Your task to perform on an android device: set default search engine in the chrome app Image 0: 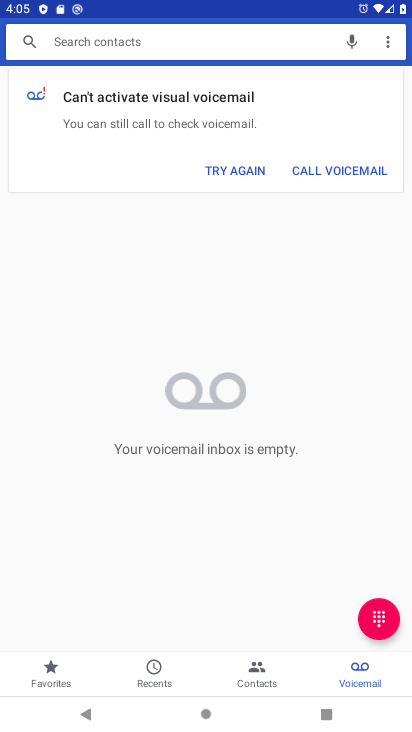
Step 0: press home button
Your task to perform on an android device: set default search engine in the chrome app Image 1: 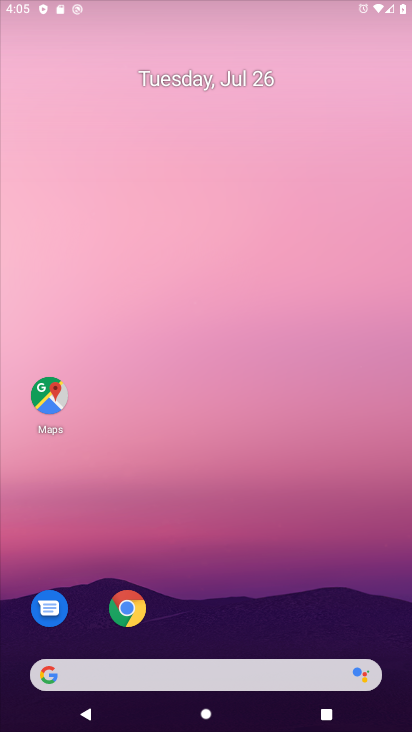
Step 1: drag from (389, 685) to (313, 175)
Your task to perform on an android device: set default search engine in the chrome app Image 2: 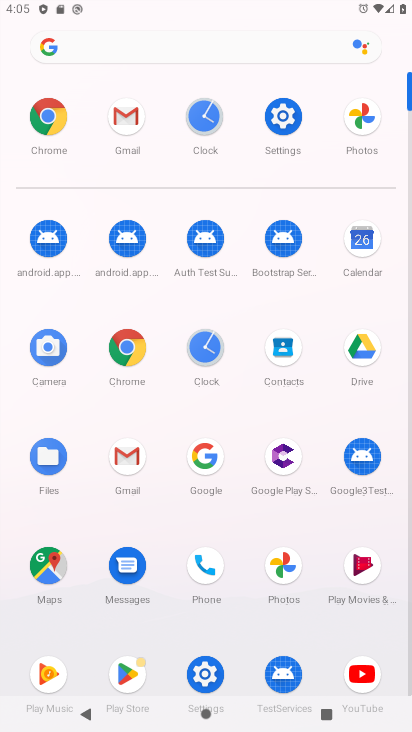
Step 2: click (121, 350)
Your task to perform on an android device: set default search engine in the chrome app Image 3: 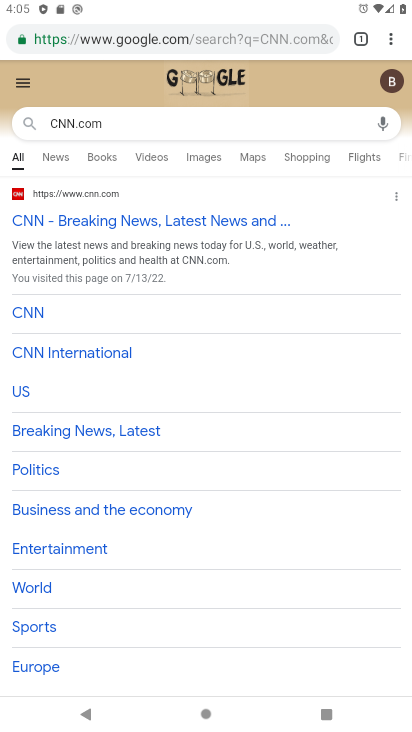
Step 3: click (392, 35)
Your task to perform on an android device: set default search engine in the chrome app Image 4: 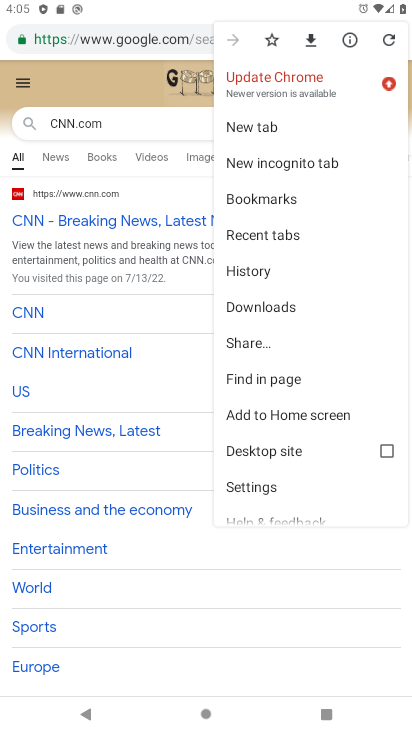
Step 4: click (250, 489)
Your task to perform on an android device: set default search engine in the chrome app Image 5: 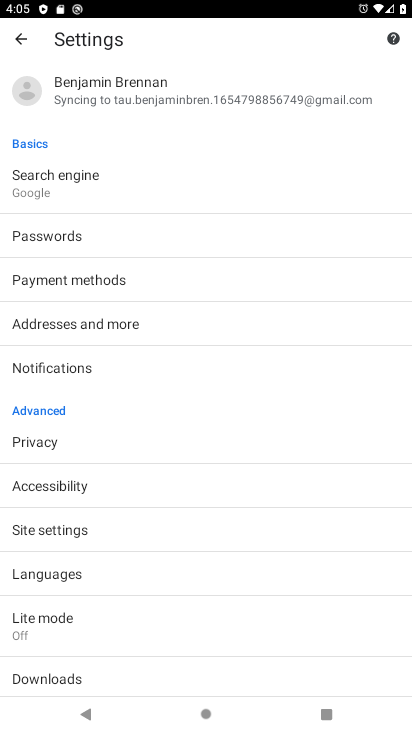
Step 5: click (45, 183)
Your task to perform on an android device: set default search engine in the chrome app Image 6: 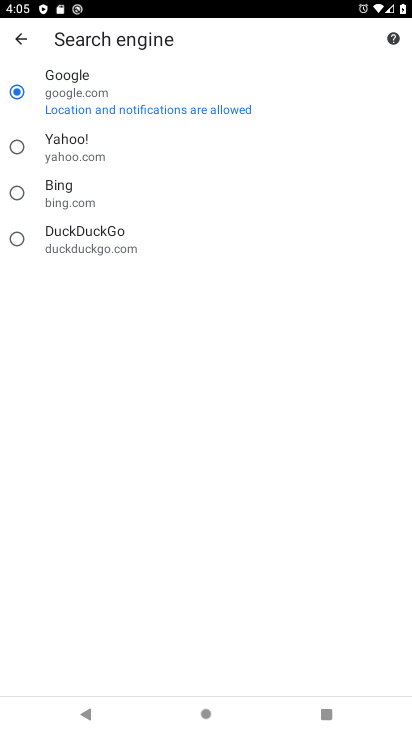
Step 6: task complete